Your task to perform on an android device: Search for vegetarian restaurants on Maps Image 0: 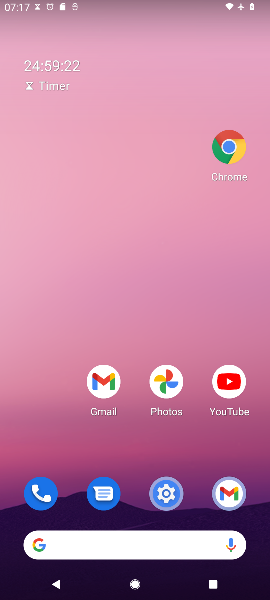
Step 0: drag from (30, 269) to (196, 250)
Your task to perform on an android device: Search for vegetarian restaurants on Maps Image 1: 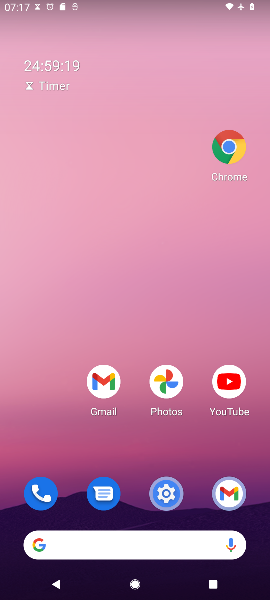
Step 1: drag from (65, 454) to (52, 73)
Your task to perform on an android device: Search for vegetarian restaurants on Maps Image 2: 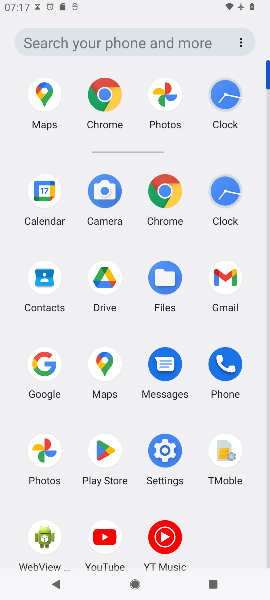
Step 2: click (100, 356)
Your task to perform on an android device: Search for vegetarian restaurants on Maps Image 3: 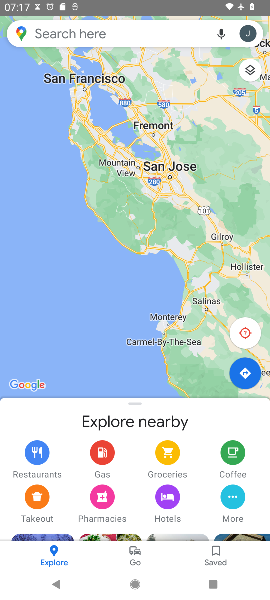
Step 3: drag from (225, 73) to (125, 30)
Your task to perform on an android device: Search for vegetarian restaurants on Maps Image 4: 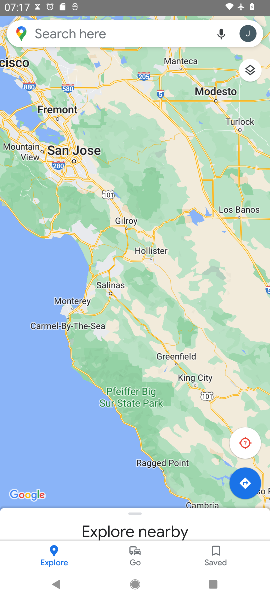
Step 4: click (103, 30)
Your task to perform on an android device: Search for vegetarian restaurants on Maps Image 5: 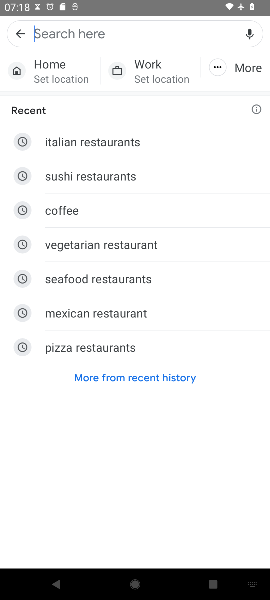
Step 5: click (85, 241)
Your task to perform on an android device: Search for vegetarian restaurants on Maps Image 6: 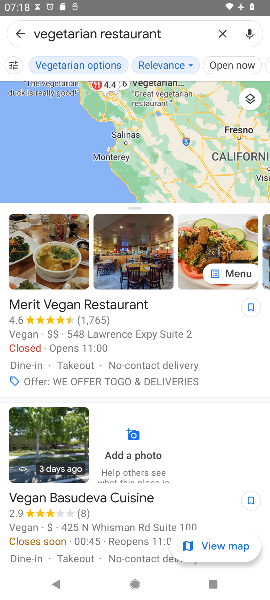
Step 6: task complete